Your task to perform on an android device: turn on location history Image 0: 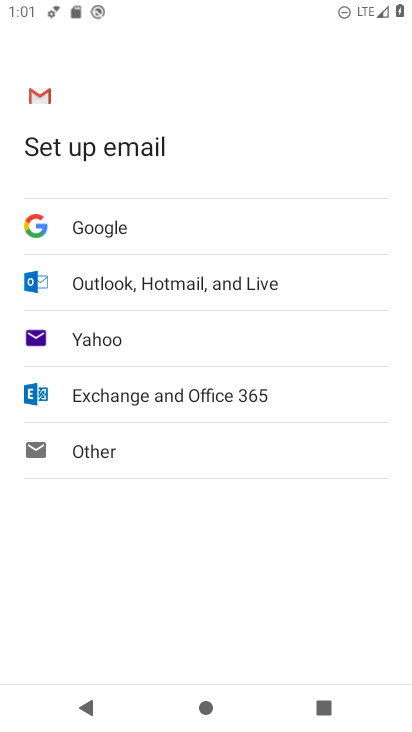
Step 0: press home button
Your task to perform on an android device: turn on location history Image 1: 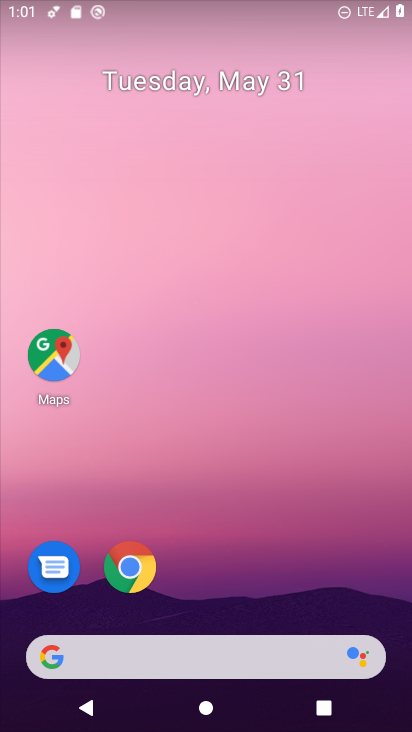
Step 1: drag from (212, 606) to (212, 118)
Your task to perform on an android device: turn on location history Image 2: 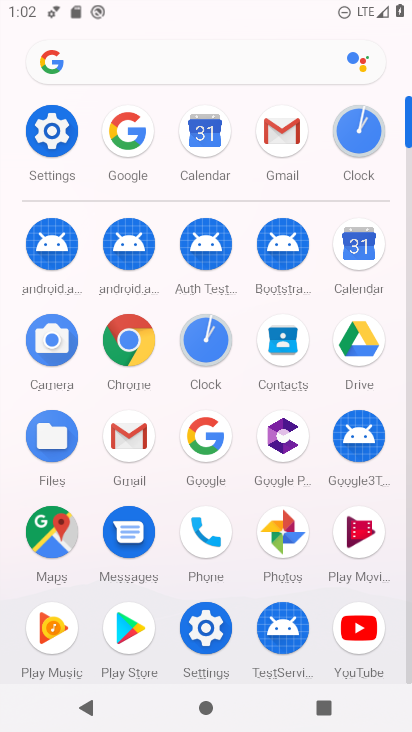
Step 2: click (44, 134)
Your task to perform on an android device: turn on location history Image 3: 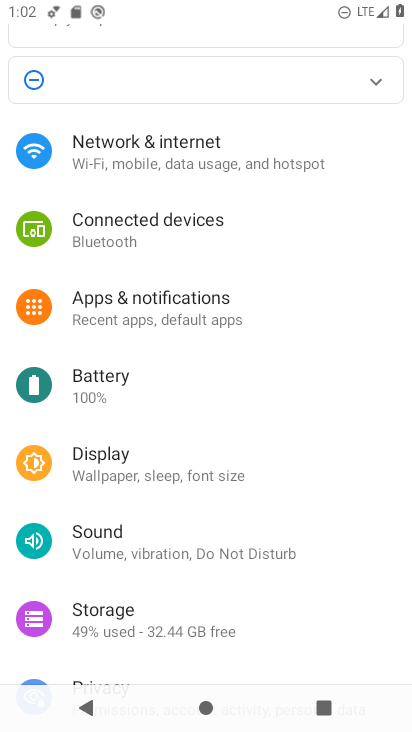
Step 3: drag from (163, 623) to (181, 315)
Your task to perform on an android device: turn on location history Image 4: 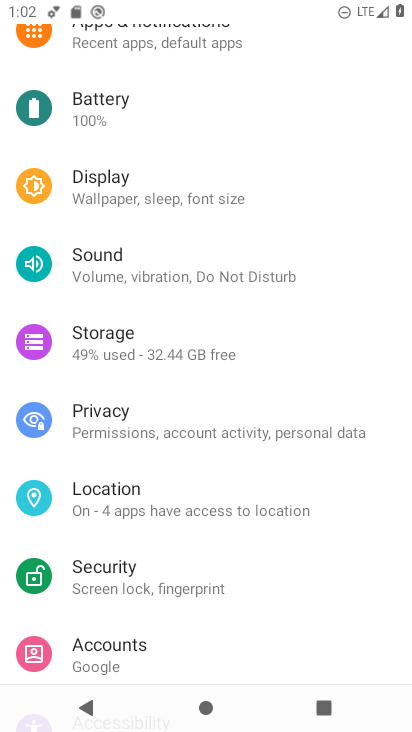
Step 4: click (114, 517)
Your task to perform on an android device: turn on location history Image 5: 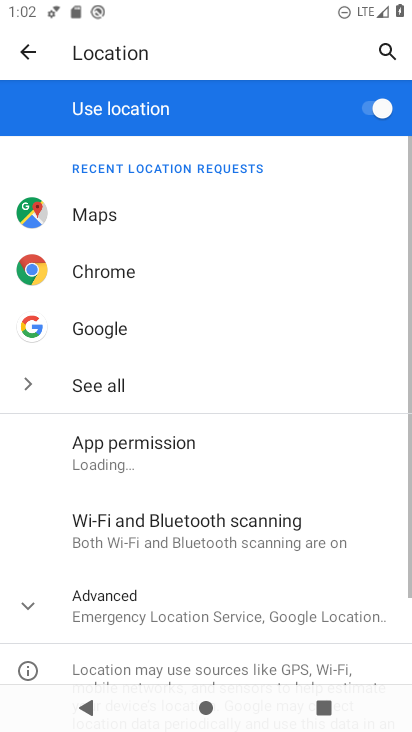
Step 5: drag from (200, 616) to (247, 360)
Your task to perform on an android device: turn on location history Image 6: 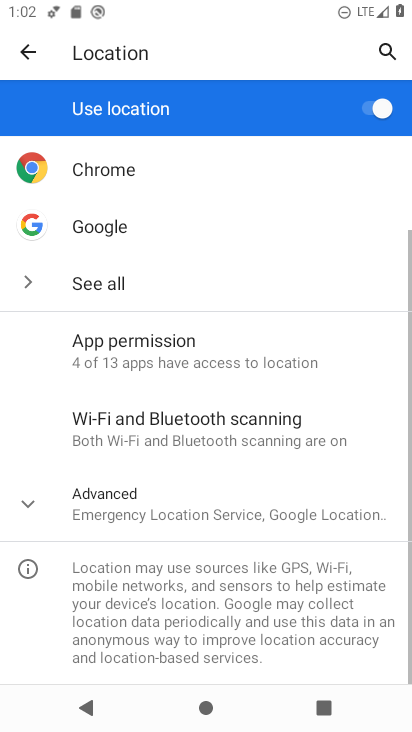
Step 6: click (173, 508)
Your task to perform on an android device: turn on location history Image 7: 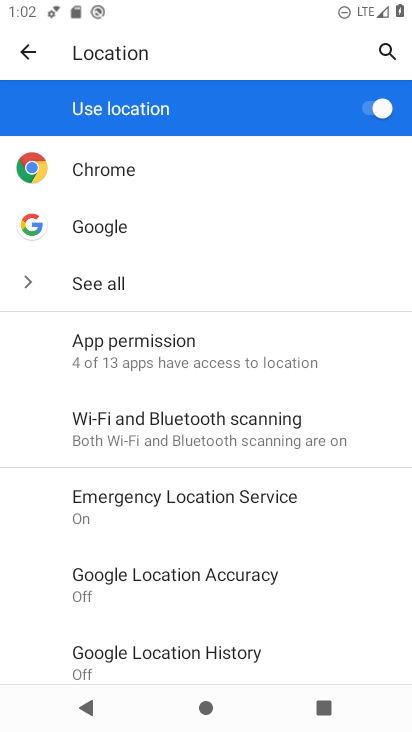
Step 7: drag from (174, 597) to (202, 375)
Your task to perform on an android device: turn on location history Image 8: 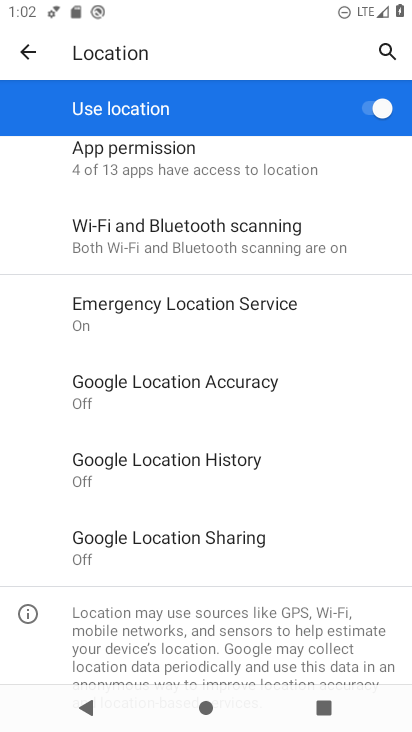
Step 8: click (202, 455)
Your task to perform on an android device: turn on location history Image 9: 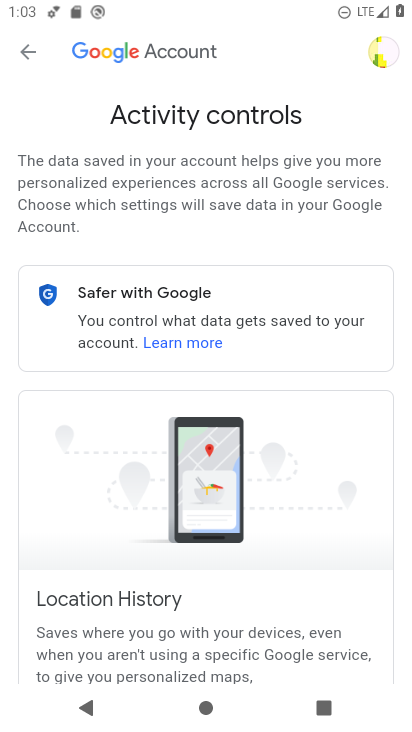
Step 9: task complete